Your task to perform on an android device: Open the calendar and show me this week's events? Image 0: 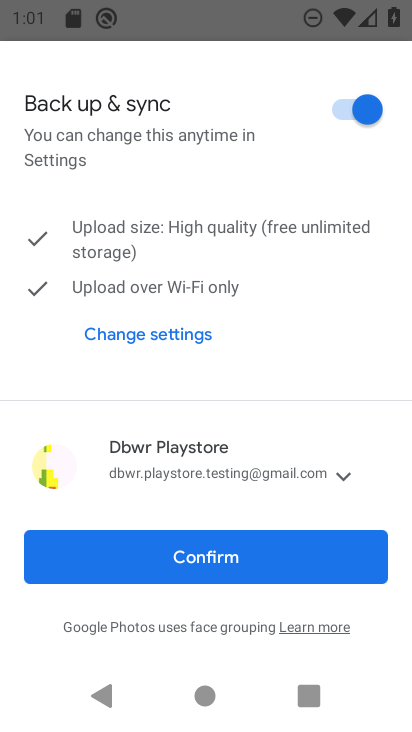
Step 0: press home button
Your task to perform on an android device: Open the calendar and show me this week's events? Image 1: 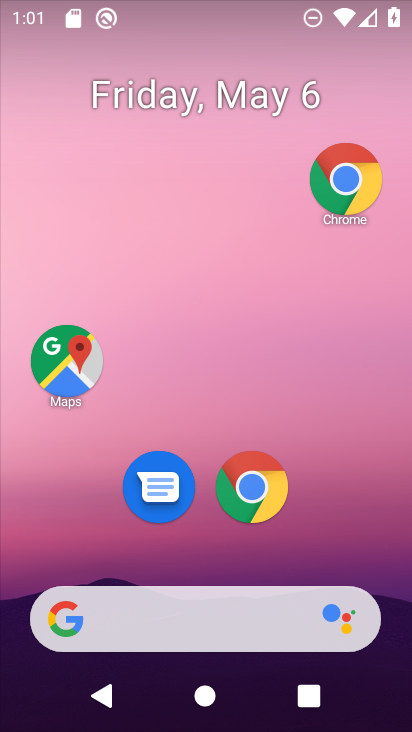
Step 1: drag from (354, 535) to (261, 16)
Your task to perform on an android device: Open the calendar and show me this week's events? Image 2: 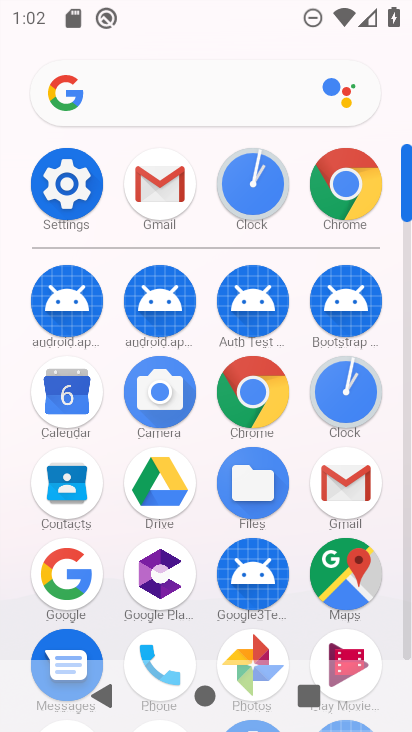
Step 2: click (64, 417)
Your task to perform on an android device: Open the calendar and show me this week's events? Image 3: 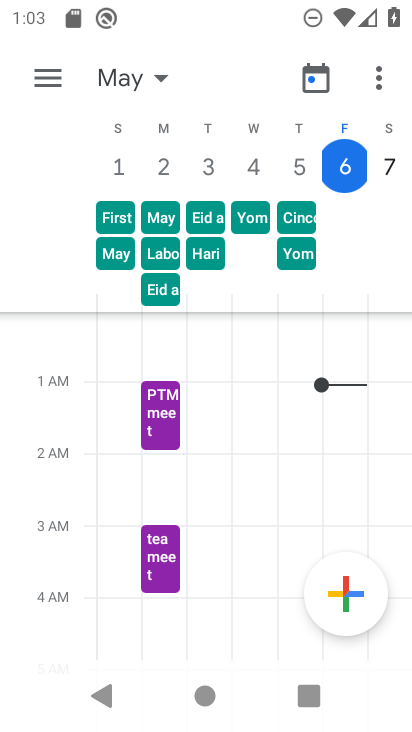
Step 3: task complete